Your task to perform on an android device: Go to accessibility settings Image 0: 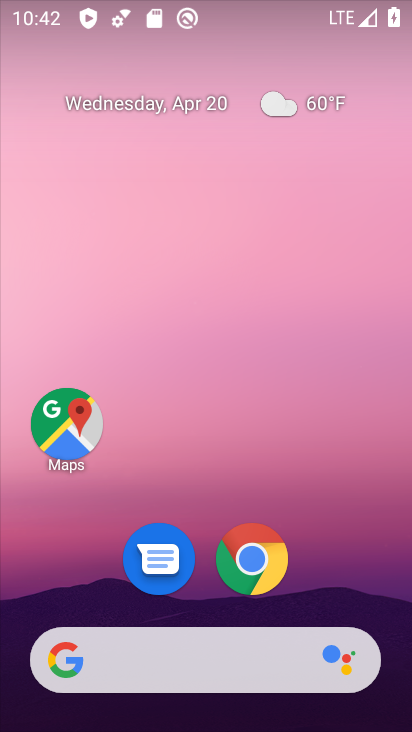
Step 0: drag from (189, 627) to (165, 113)
Your task to perform on an android device: Go to accessibility settings Image 1: 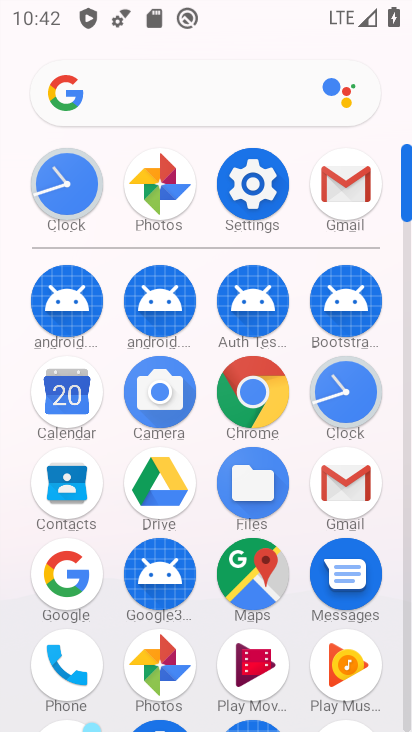
Step 1: click (250, 183)
Your task to perform on an android device: Go to accessibility settings Image 2: 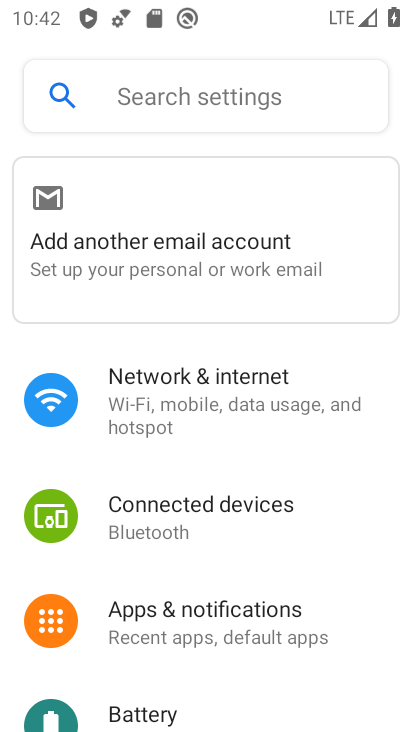
Step 2: drag from (203, 672) to (185, 204)
Your task to perform on an android device: Go to accessibility settings Image 3: 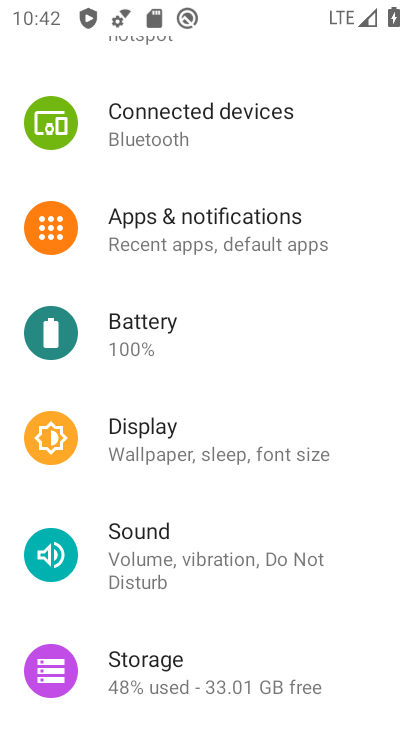
Step 3: drag from (194, 642) to (201, 234)
Your task to perform on an android device: Go to accessibility settings Image 4: 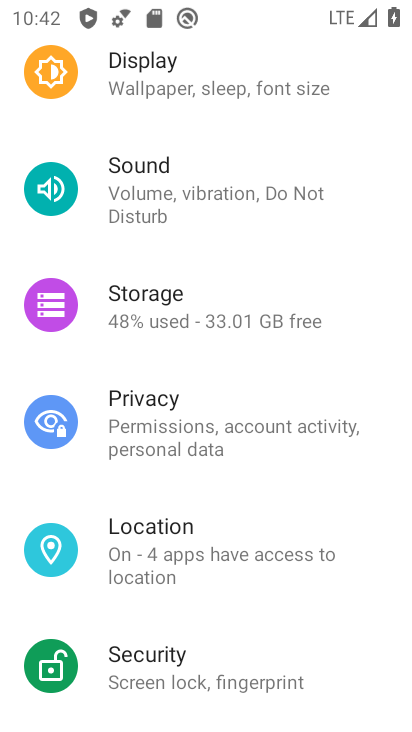
Step 4: drag from (192, 621) to (188, 217)
Your task to perform on an android device: Go to accessibility settings Image 5: 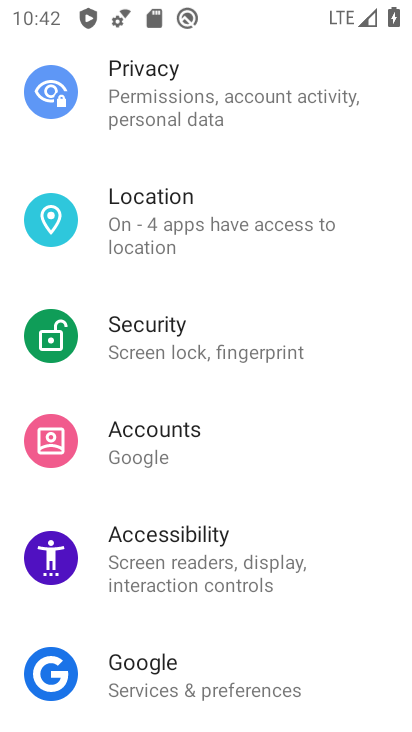
Step 5: click (177, 556)
Your task to perform on an android device: Go to accessibility settings Image 6: 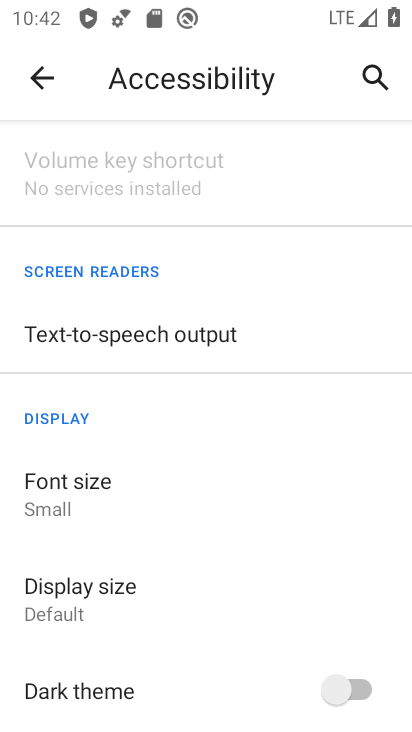
Step 6: task complete